Your task to perform on an android device: visit the assistant section in the google photos Image 0: 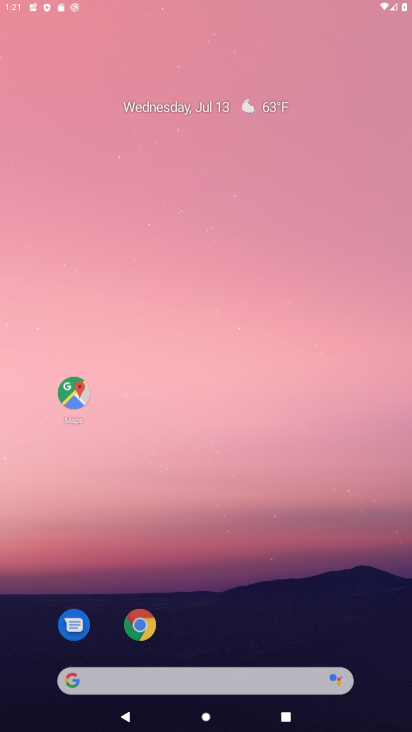
Step 0: drag from (248, 326) to (262, 169)
Your task to perform on an android device: visit the assistant section in the google photos Image 1: 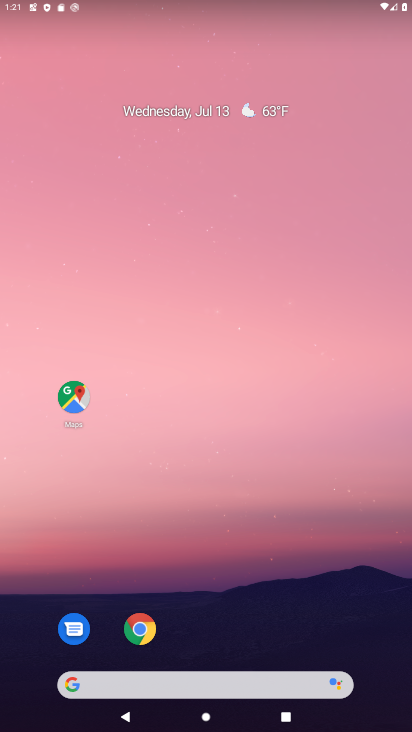
Step 1: drag from (238, 488) to (243, 155)
Your task to perform on an android device: visit the assistant section in the google photos Image 2: 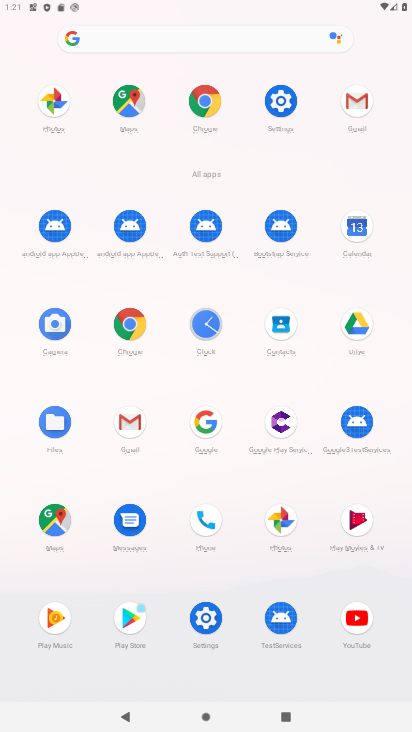
Step 2: click (279, 525)
Your task to perform on an android device: visit the assistant section in the google photos Image 3: 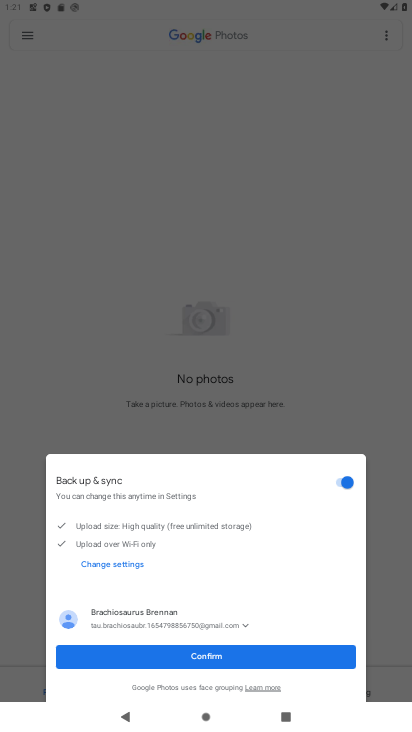
Step 3: click (197, 656)
Your task to perform on an android device: visit the assistant section in the google photos Image 4: 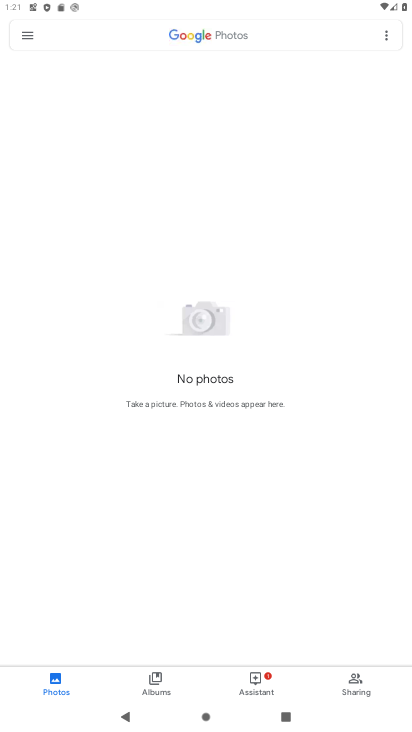
Step 4: click (258, 676)
Your task to perform on an android device: visit the assistant section in the google photos Image 5: 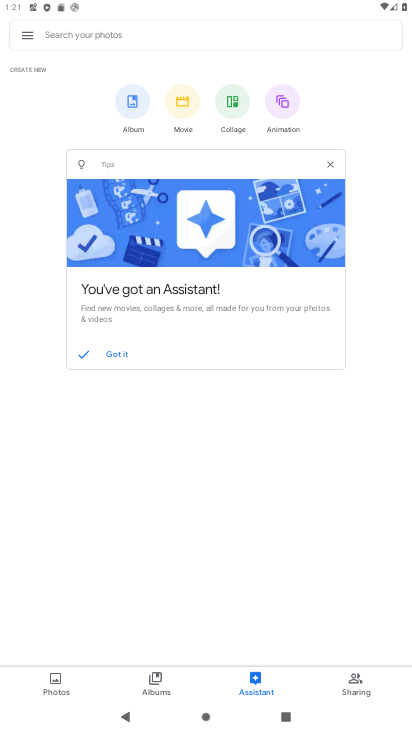
Step 5: task complete